Your task to perform on an android device: allow notifications from all sites in the chrome app Image 0: 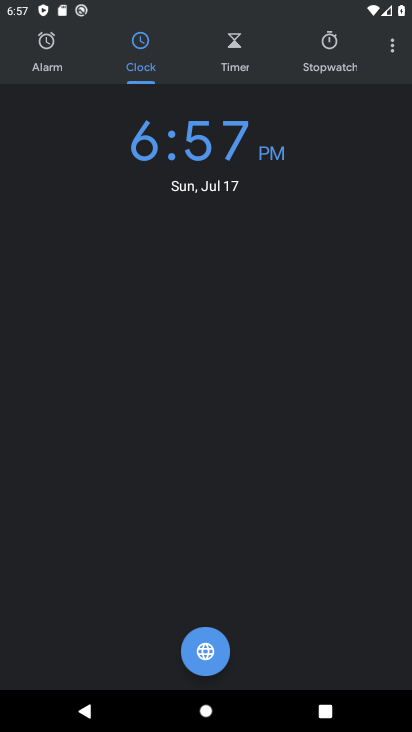
Step 0: drag from (346, 636) to (290, 296)
Your task to perform on an android device: allow notifications from all sites in the chrome app Image 1: 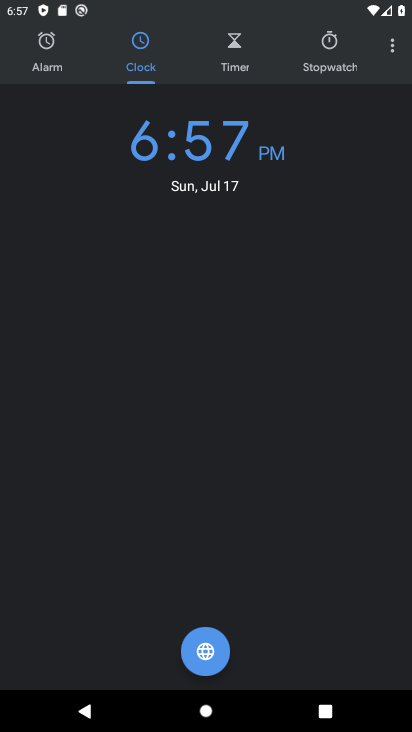
Step 1: press home button
Your task to perform on an android device: allow notifications from all sites in the chrome app Image 2: 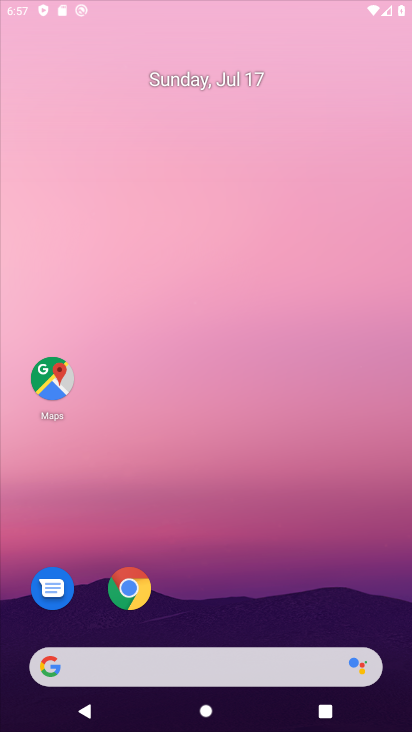
Step 2: drag from (381, 652) to (255, 11)
Your task to perform on an android device: allow notifications from all sites in the chrome app Image 3: 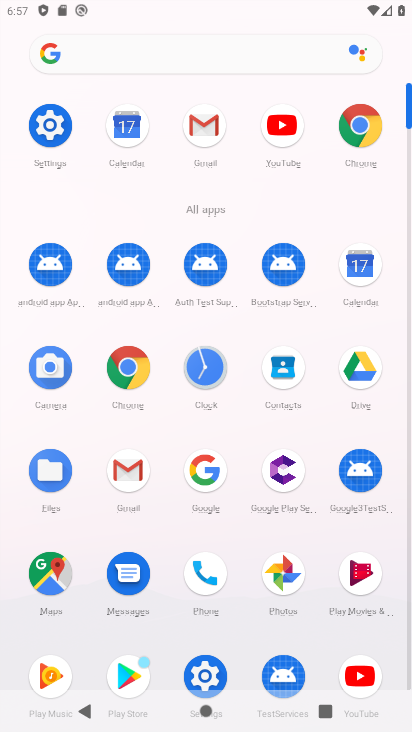
Step 3: click (111, 369)
Your task to perform on an android device: allow notifications from all sites in the chrome app Image 4: 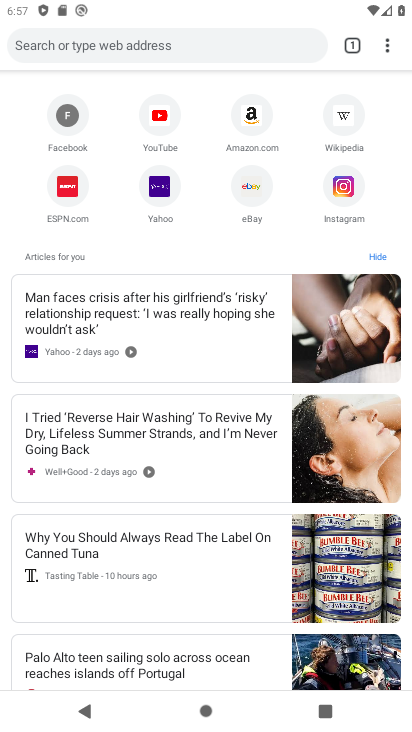
Step 4: click (387, 43)
Your task to perform on an android device: allow notifications from all sites in the chrome app Image 5: 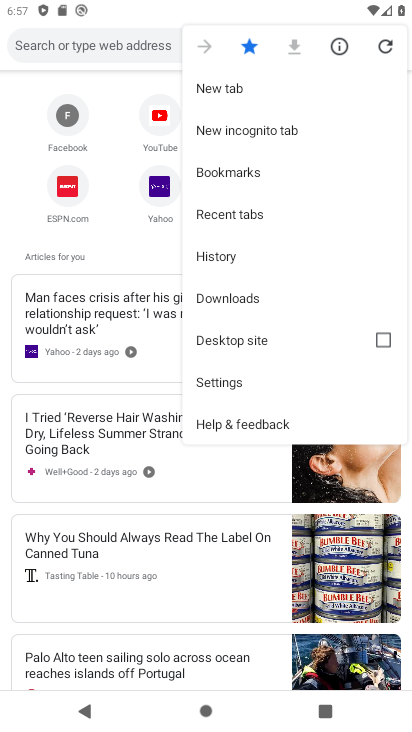
Step 5: click (221, 377)
Your task to perform on an android device: allow notifications from all sites in the chrome app Image 6: 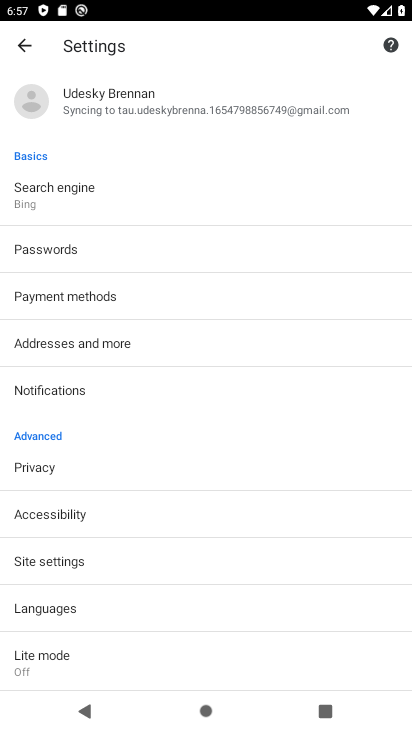
Step 6: click (91, 394)
Your task to perform on an android device: allow notifications from all sites in the chrome app Image 7: 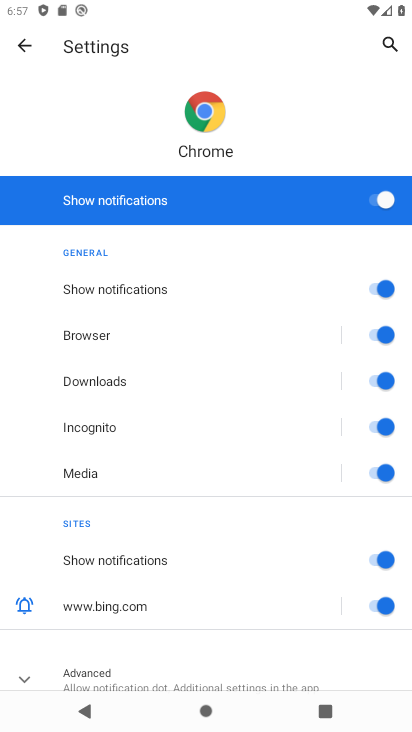
Step 7: task complete